Your task to perform on an android device: toggle priority inbox in the gmail app Image 0: 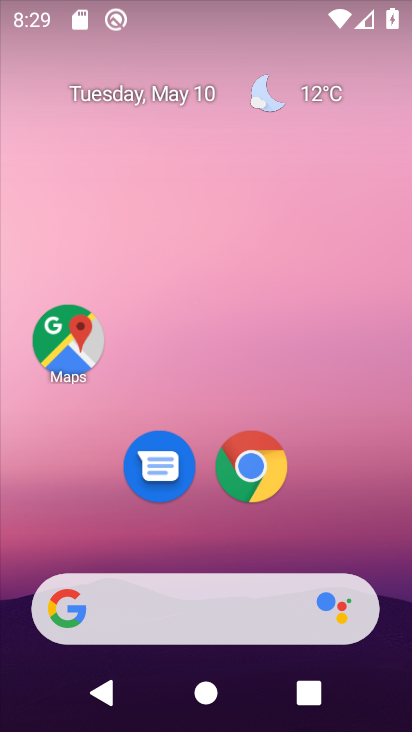
Step 0: drag from (226, 538) to (274, 2)
Your task to perform on an android device: toggle priority inbox in the gmail app Image 1: 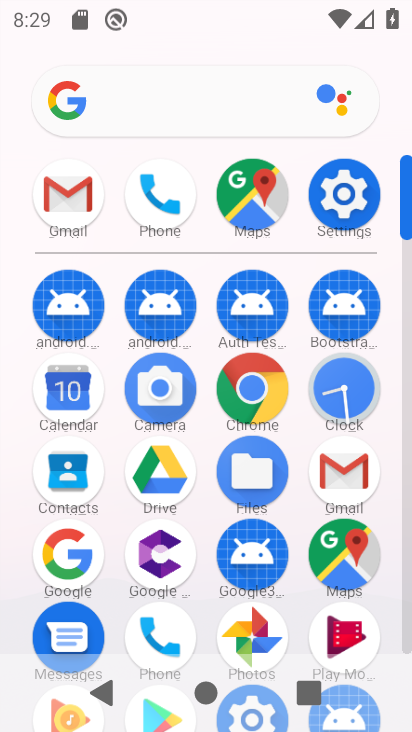
Step 1: click (345, 486)
Your task to perform on an android device: toggle priority inbox in the gmail app Image 2: 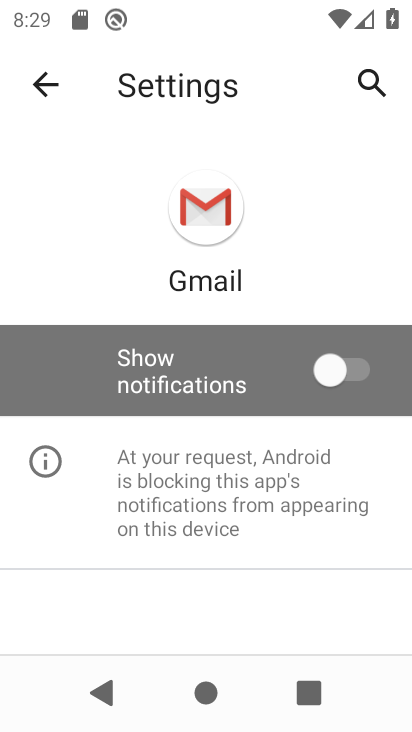
Step 2: click (61, 90)
Your task to perform on an android device: toggle priority inbox in the gmail app Image 3: 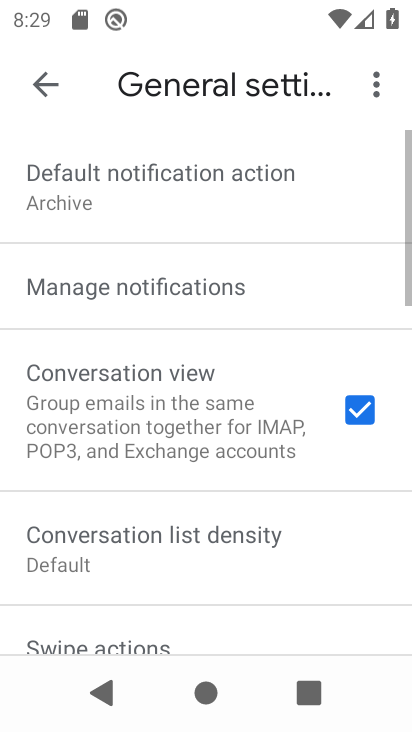
Step 3: click (61, 90)
Your task to perform on an android device: toggle priority inbox in the gmail app Image 4: 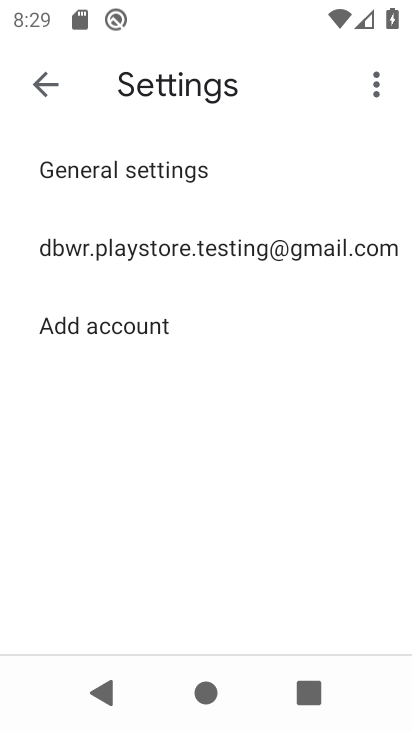
Step 4: click (164, 253)
Your task to perform on an android device: toggle priority inbox in the gmail app Image 5: 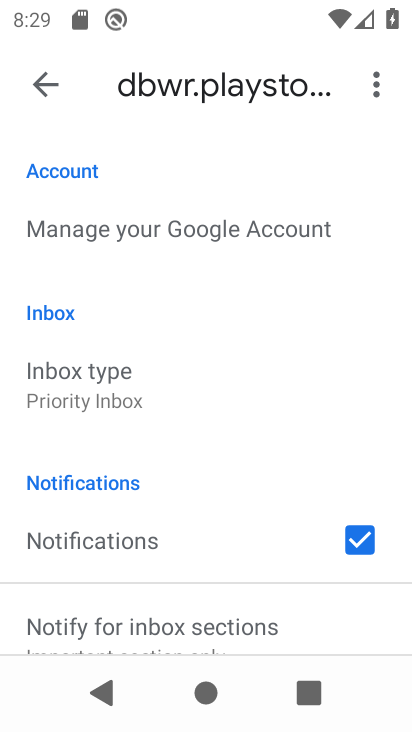
Step 5: click (130, 389)
Your task to perform on an android device: toggle priority inbox in the gmail app Image 6: 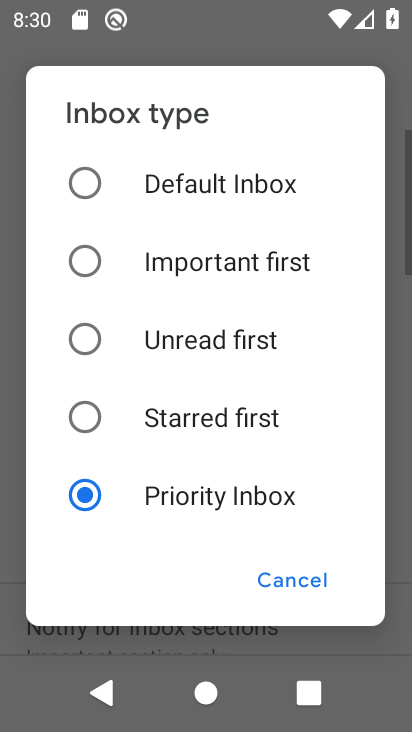
Step 6: click (116, 191)
Your task to perform on an android device: toggle priority inbox in the gmail app Image 7: 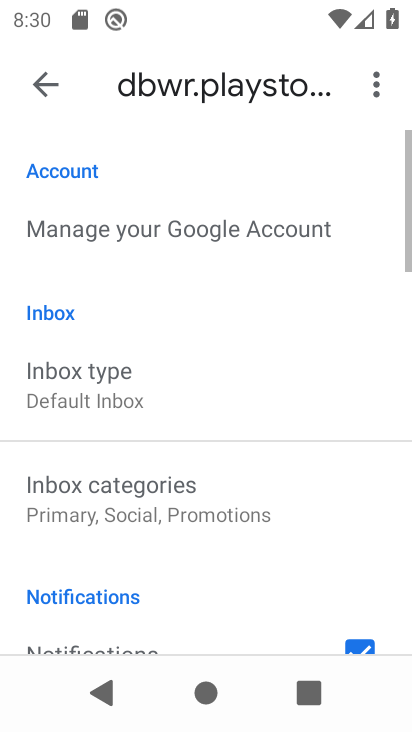
Step 7: task complete